Your task to perform on an android device: turn on sleep mode Image 0: 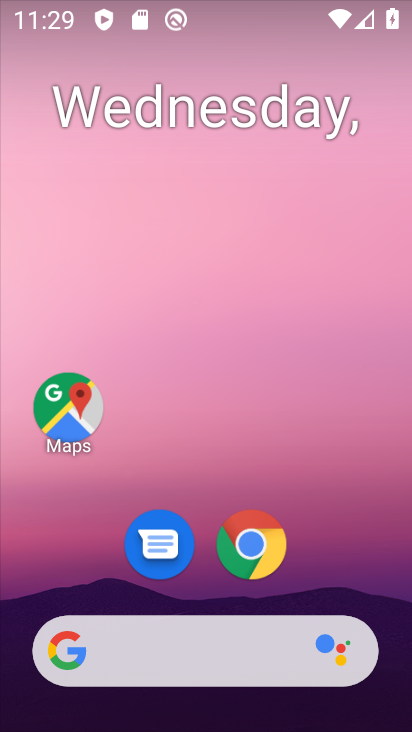
Step 0: drag from (280, 330) to (240, 181)
Your task to perform on an android device: turn on sleep mode Image 1: 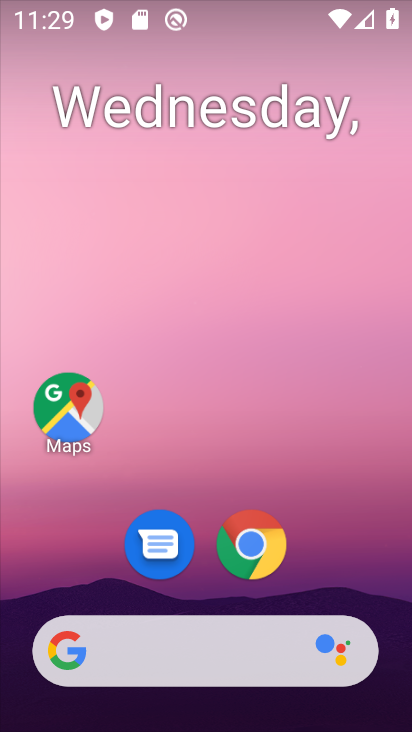
Step 1: task complete